Your task to perform on an android device: check android version Image 0: 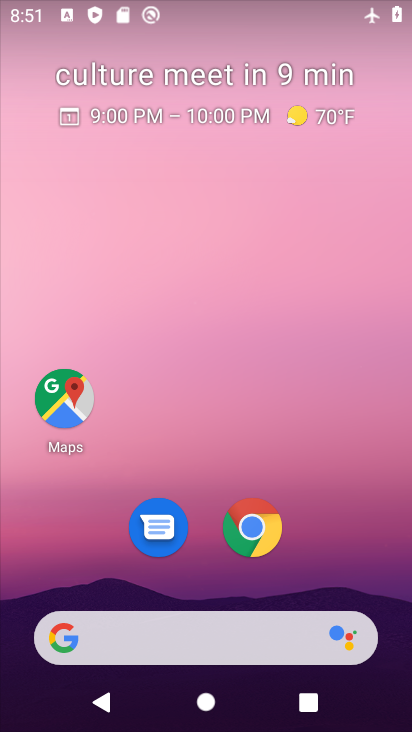
Step 0: drag from (178, 433) to (200, 299)
Your task to perform on an android device: check android version Image 1: 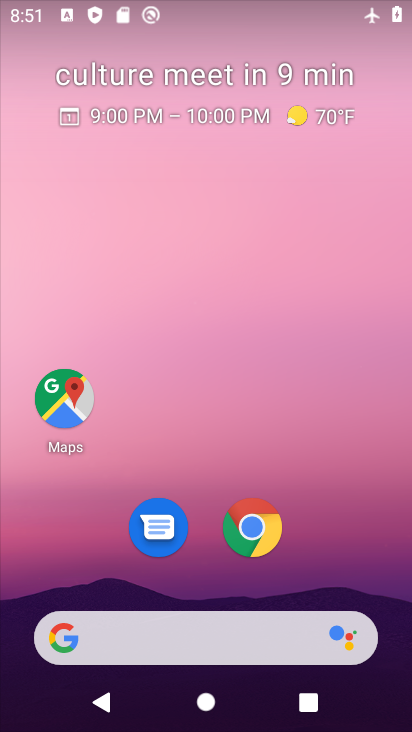
Step 1: click (271, 193)
Your task to perform on an android device: check android version Image 2: 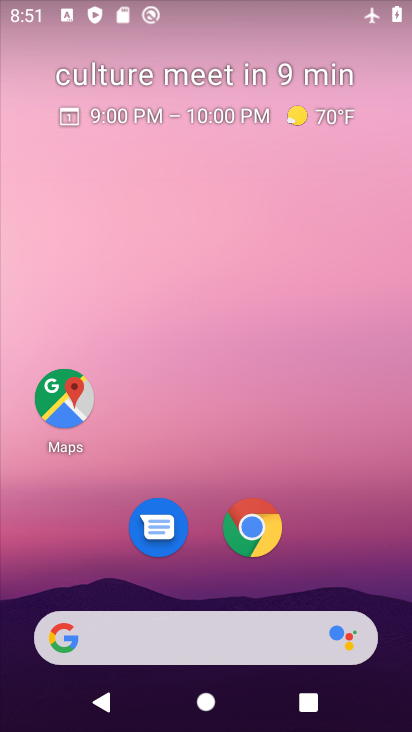
Step 2: drag from (271, 632) to (305, 137)
Your task to perform on an android device: check android version Image 3: 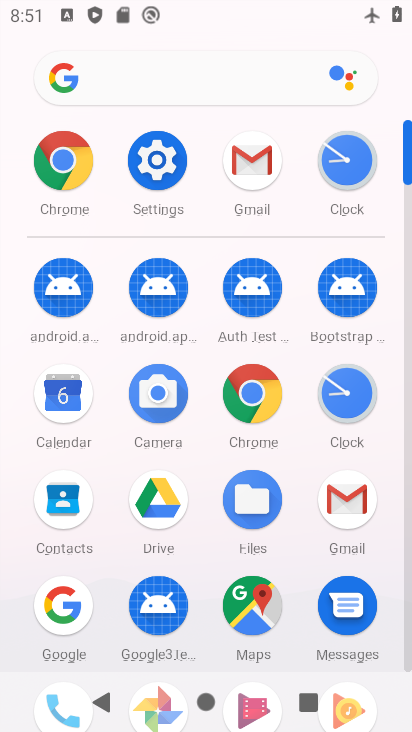
Step 3: drag from (207, 398) to (222, 203)
Your task to perform on an android device: check android version Image 4: 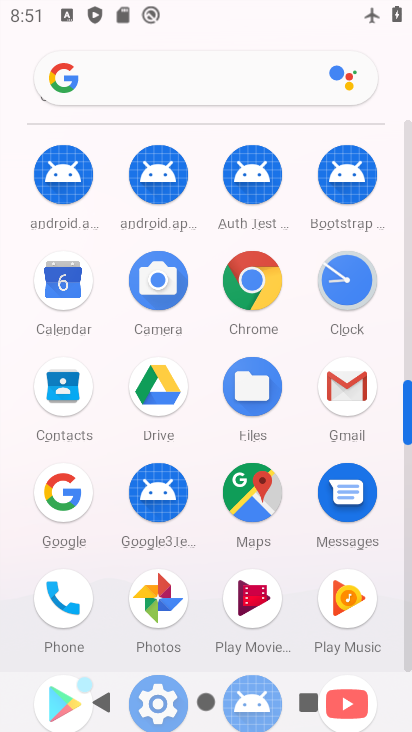
Step 4: drag from (274, 452) to (280, 104)
Your task to perform on an android device: check android version Image 5: 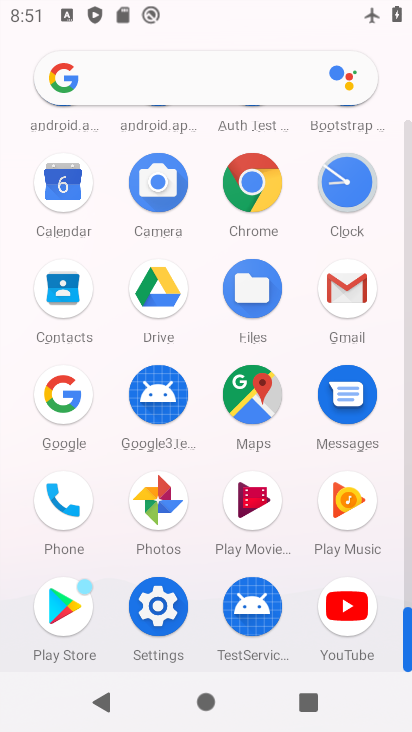
Step 5: click (167, 618)
Your task to perform on an android device: check android version Image 6: 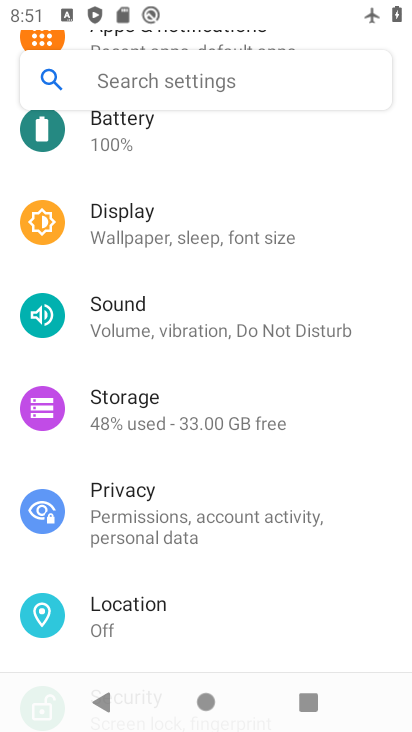
Step 6: drag from (172, 528) to (213, 207)
Your task to perform on an android device: check android version Image 7: 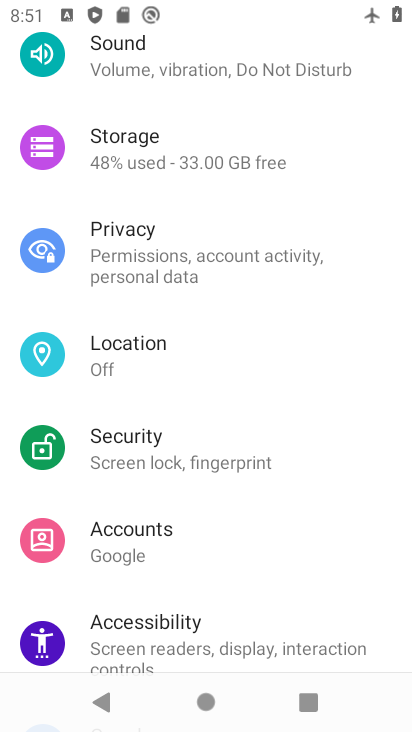
Step 7: drag from (205, 438) to (231, 198)
Your task to perform on an android device: check android version Image 8: 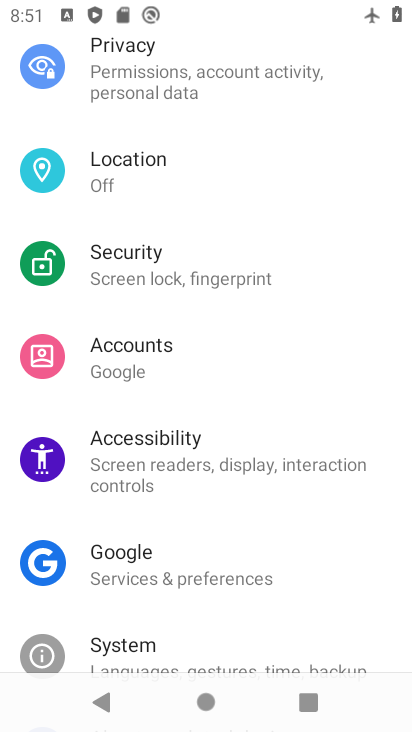
Step 8: drag from (185, 571) to (231, 151)
Your task to perform on an android device: check android version Image 9: 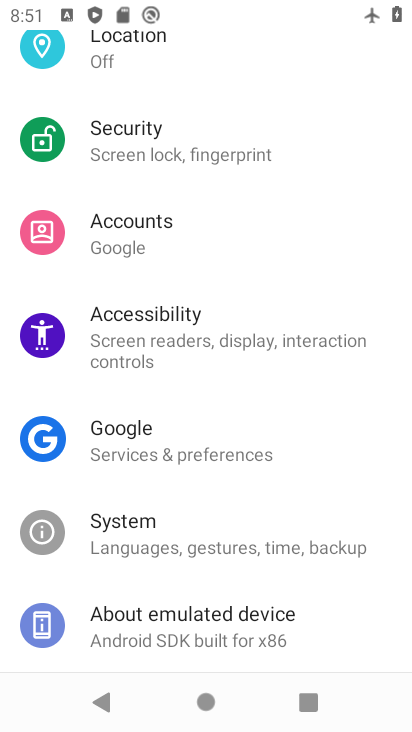
Step 9: drag from (174, 518) to (222, 219)
Your task to perform on an android device: check android version Image 10: 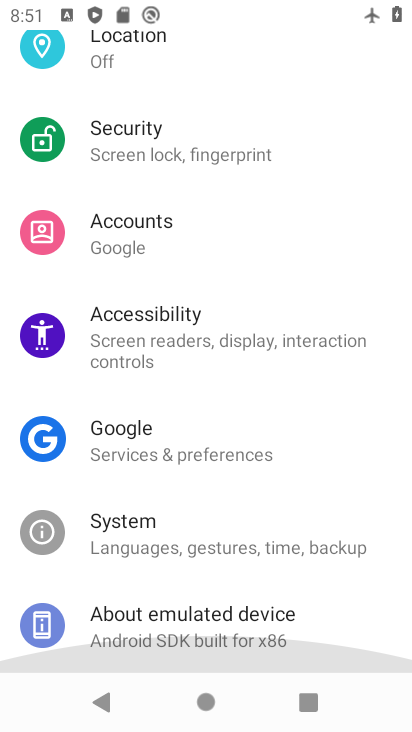
Step 10: click (231, 158)
Your task to perform on an android device: check android version Image 11: 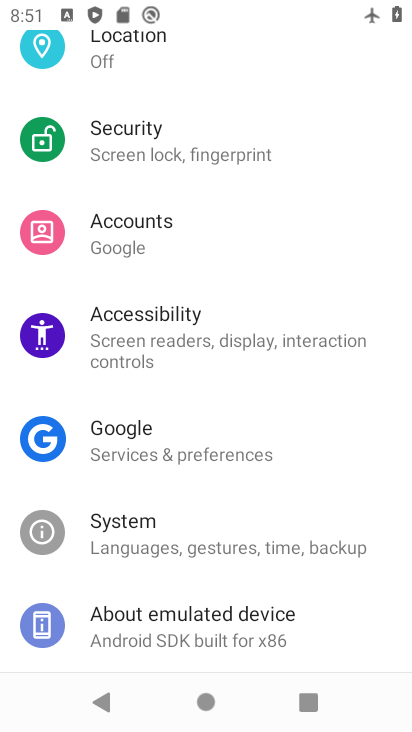
Step 11: click (203, 609)
Your task to perform on an android device: check android version Image 12: 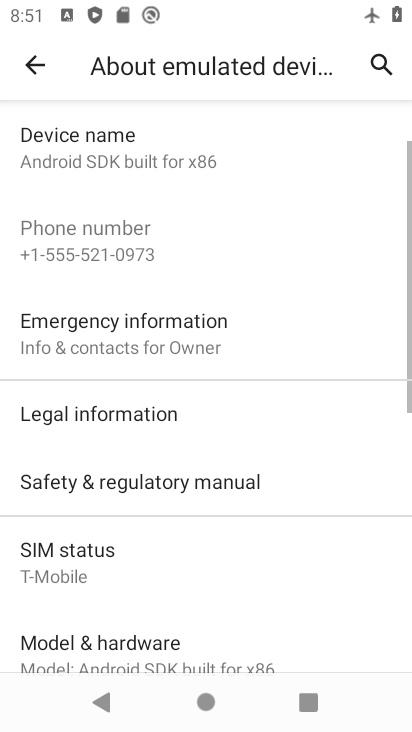
Step 12: drag from (204, 521) to (234, 293)
Your task to perform on an android device: check android version Image 13: 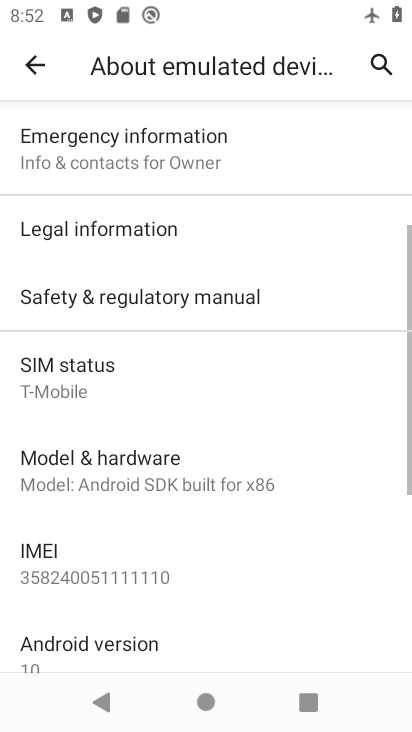
Step 13: drag from (189, 534) to (194, 395)
Your task to perform on an android device: check android version Image 14: 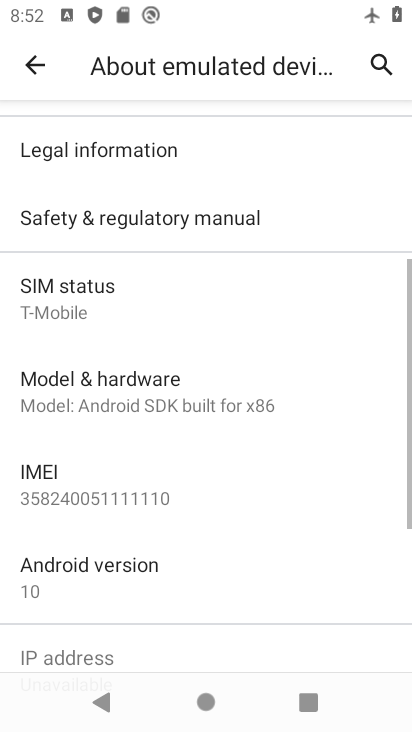
Step 14: click (196, 359)
Your task to perform on an android device: check android version Image 15: 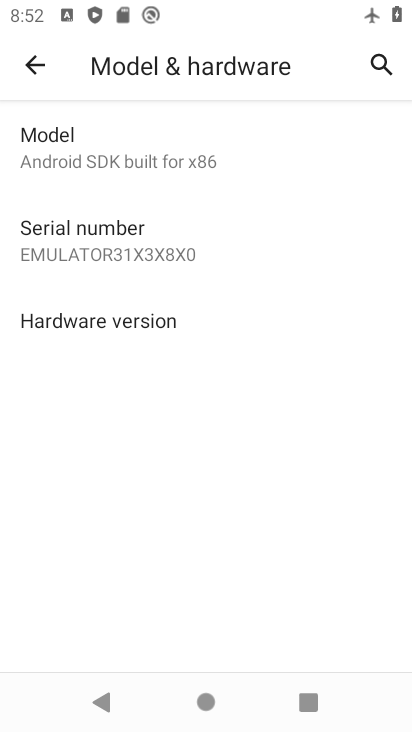
Step 15: click (30, 71)
Your task to perform on an android device: check android version Image 16: 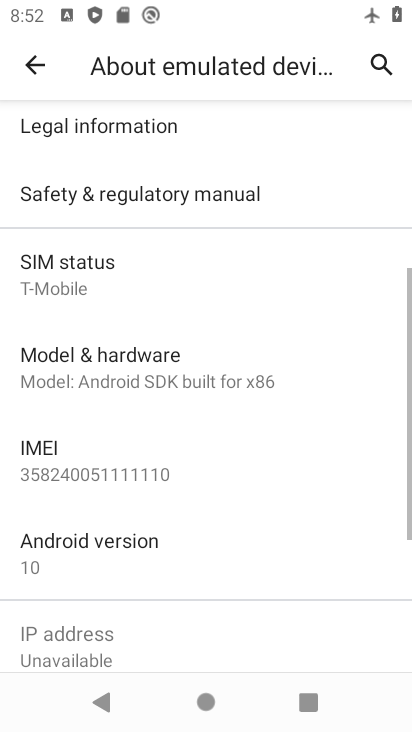
Step 16: click (146, 564)
Your task to perform on an android device: check android version Image 17: 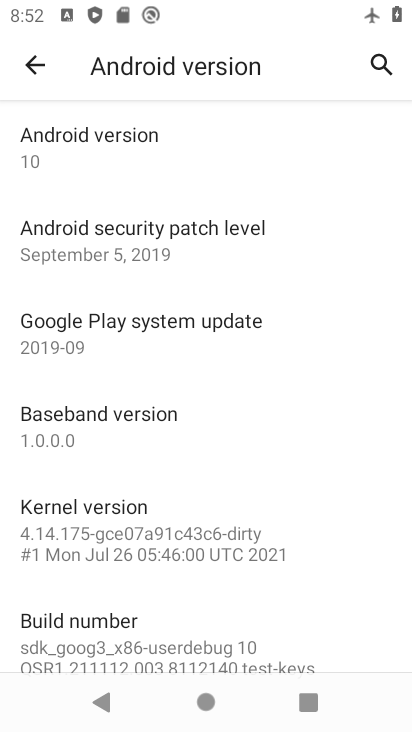
Step 17: click (251, 156)
Your task to perform on an android device: check android version Image 18: 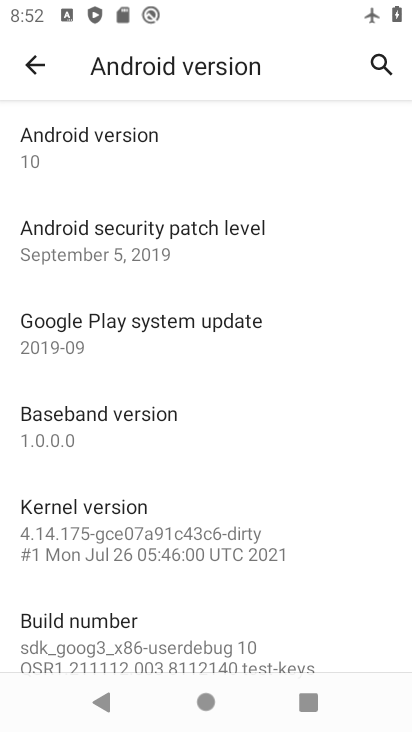
Step 18: task complete